Your task to perform on an android device: Toggle notifications for the Google Maps app Image 0: 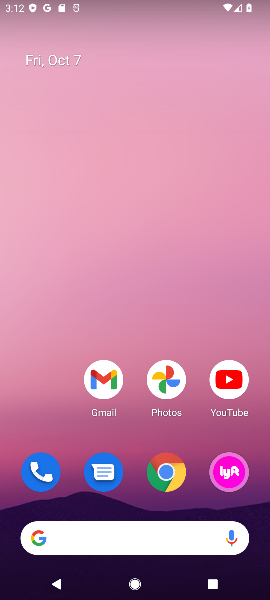
Step 0: drag from (144, 437) to (128, 145)
Your task to perform on an android device: Toggle notifications for the Google Maps app Image 1: 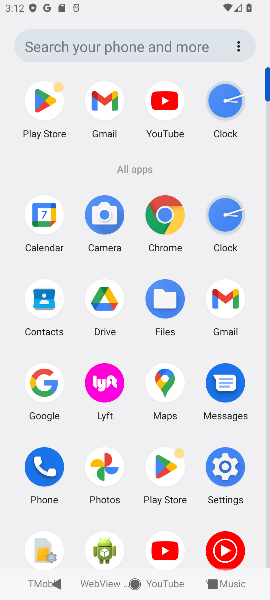
Step 1: click (224, 466)
Your task to perform on an android device: Toggle notifications for the Google Maps app Image 2: 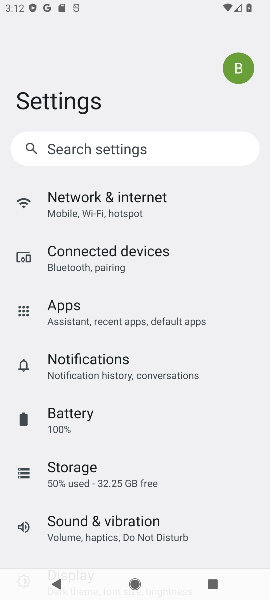
Step 2: click (131, 371)
Your task to perform on an android device: Toggle notifications for the Google Maps app Image 3: 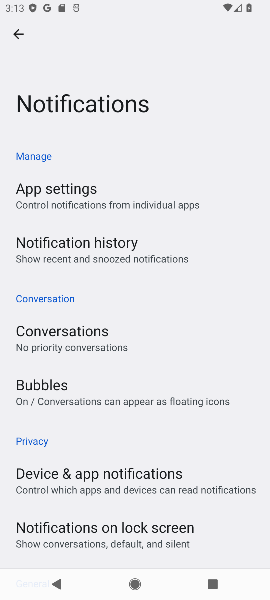
Step 3: click (94, 206)
Your task to perform on an android device: Toggle notifications for the Google Maps app Image 4: 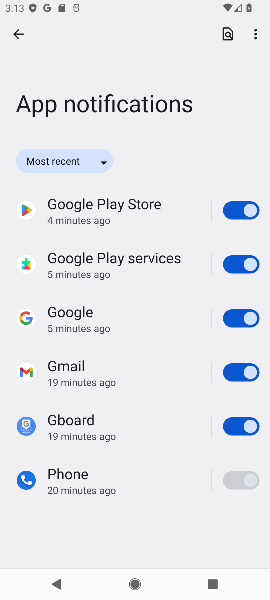
Step 4: drag from (139, 420) to (138, 288)
Your task to perform on an android device: Toggle notifications for the Google Maps app Image 5: 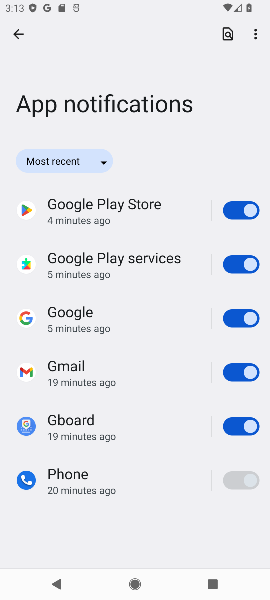
Step 5: click (97, 162)
Your task to perform on an android device: Toggle notifications for the Google Maps app Image 6: 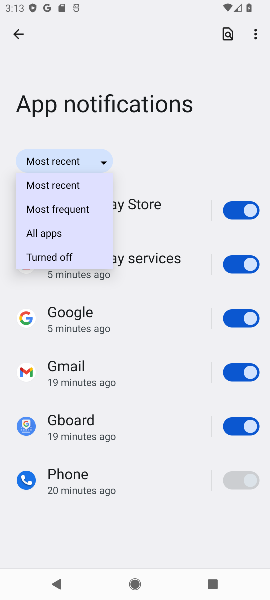
Step 6: click (64, 233)
Your task to perform on an android device: Toggle notifications for the Google Maps app Image 7: 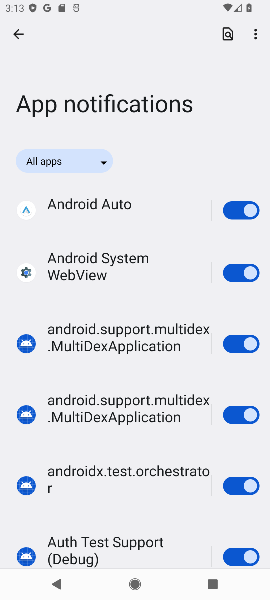
Step 7: drag from (149, 459) to (137, 271)
Your task to perform on an android device: Toggle notifications for the Google Maps app Image 8: 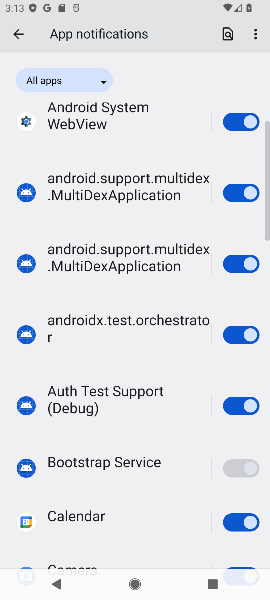
Step 8: drag from (123, 485) to (110, 325)
Your task to perform on an android device: Toggle notifications for the Google Maps app Image 9: 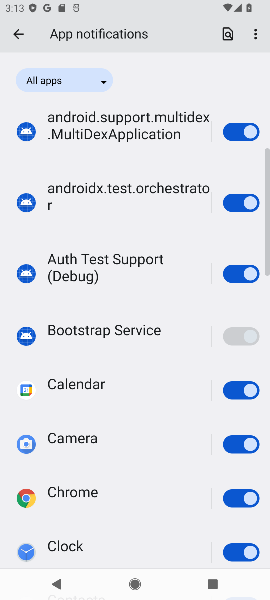
Step 9: drag from (101, 469) to (107, 279)
Your task to perform on an android device: Toggle notifications for the Google Maps app Image 10: 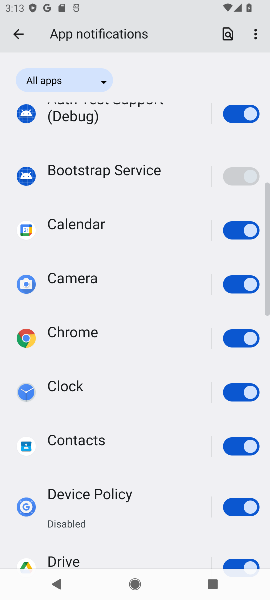
Step 10: drag from (102, 463) to (107, 318)
Your task to perform on an android device: Toggle notifications for the Google Maps app Image 11: 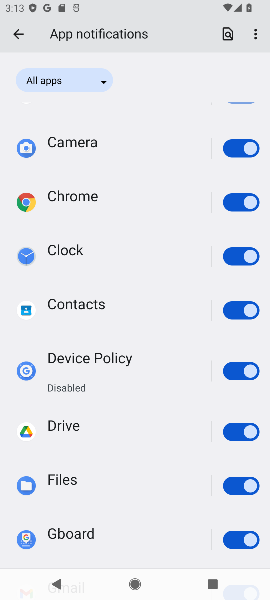
Step 11: drag from (106, 476) to (111, 379)
Your task to perform on an android device: Toggle notifications for the Google Maps app Image 12: 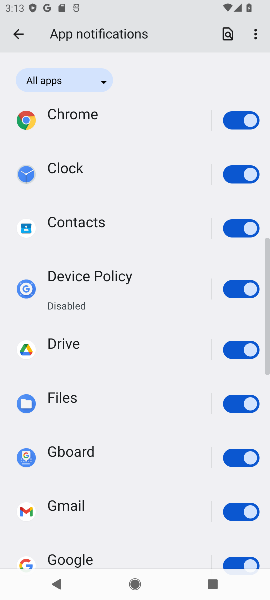
Step 12: drag from (100, 499) to (125, 378)
Your task to perform on an android device: Toggle notifications for the Google Maps app Image 13: 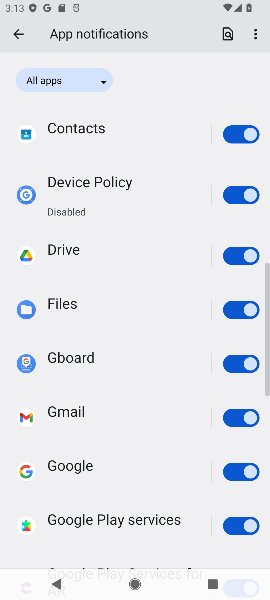
Step 13: drag from (101, 489) to (123, 359)
Your task to perform on an android device: Toggle notifications for the Google Maps app Image 14: 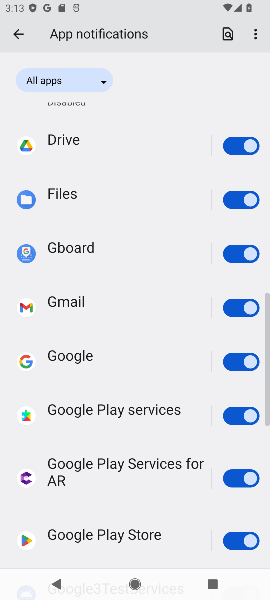
Step 14: drag from (111, 502) to (123, 352)
Your task to perform on an android device: Toggle notifications for the Google Maps app Image 15: 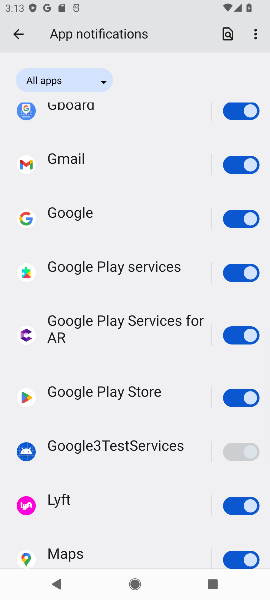
Step 15: drag from (93, 475) to (108, 357)
Your task to perform on an android device: Toggle notifications for the Google Maps app Image 16: 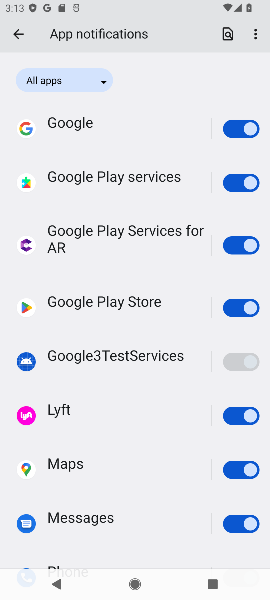
Step 16: click (244, 468)
Your task to perform on an android device: Toggle notifications for the Google Maps app Image 17: 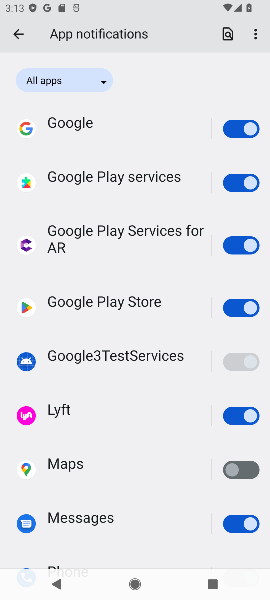
Step 17: task complete